Your task to perform on an android device: Is it going to rain tomorrow? Image 0: 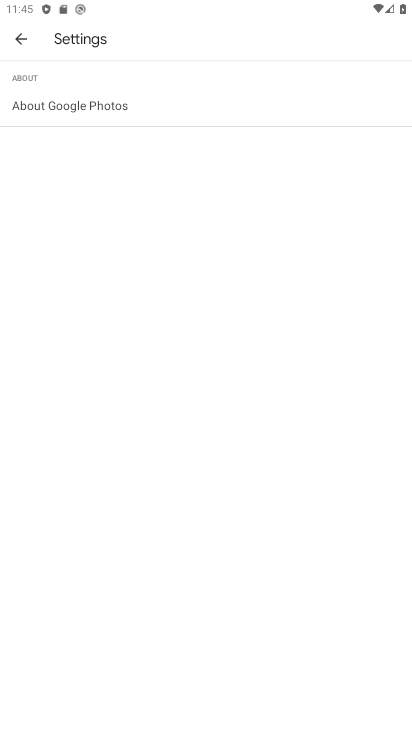
Step 0: task complete